Your task to perform on an android device: Open Amazon Image 0: 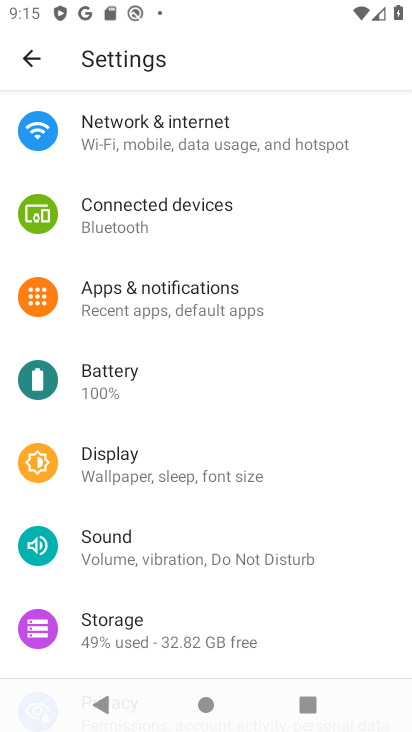
Step 0: press home button
Your task to perform on an android device: Open Amazon Image 1: 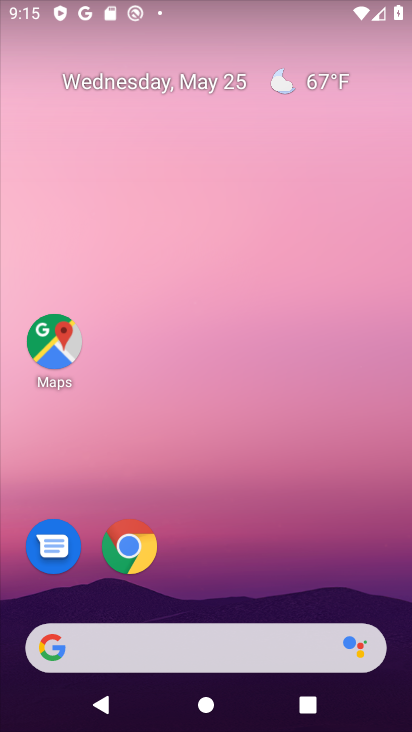
Step 1: click (123, 556)
Your task to perform on an android device: Open Amazon Image 2: 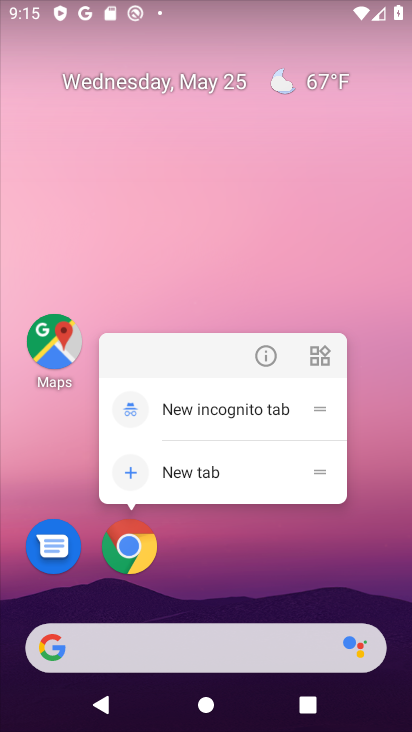
Step 2: click (124, 555)
Your task to perform on an android device: Open Amazon Image 3: 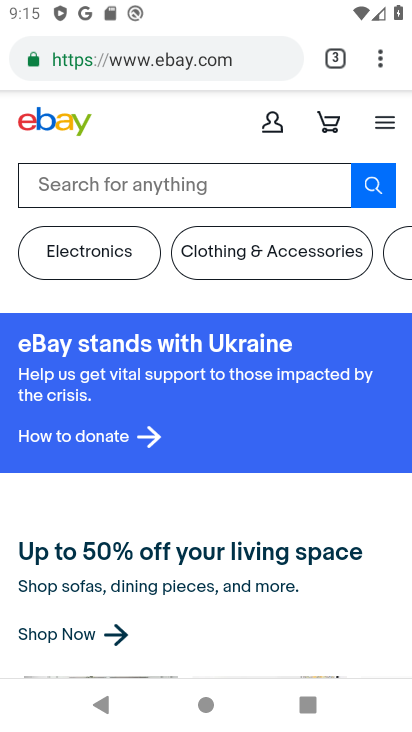
Step 3: drag from (372, 58) to (355, 115)
Your task to perform on an android device: Open Amazon Image 4: 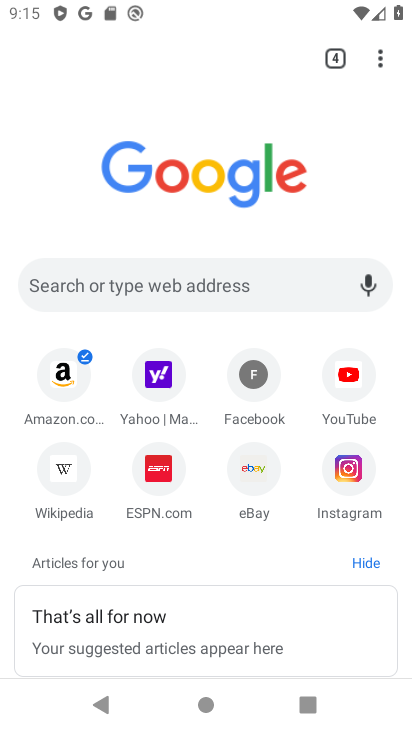
Step 4: click (267, 471)
Your task to perform on an android device: Open Amazon Image 5: 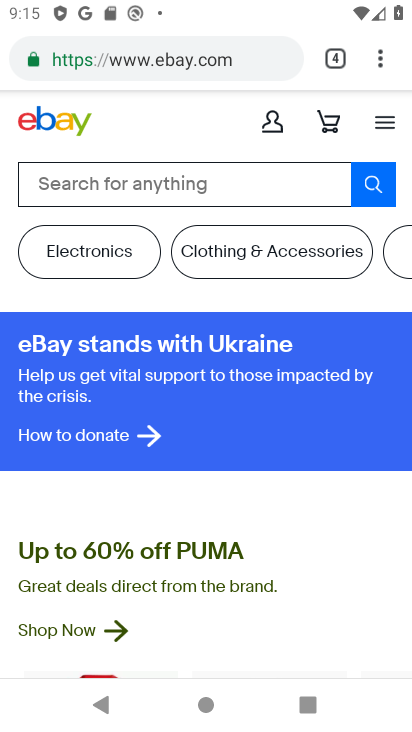
Step 5: task complete